Your task to perform on an android device: When is my next meeting? Image 0: 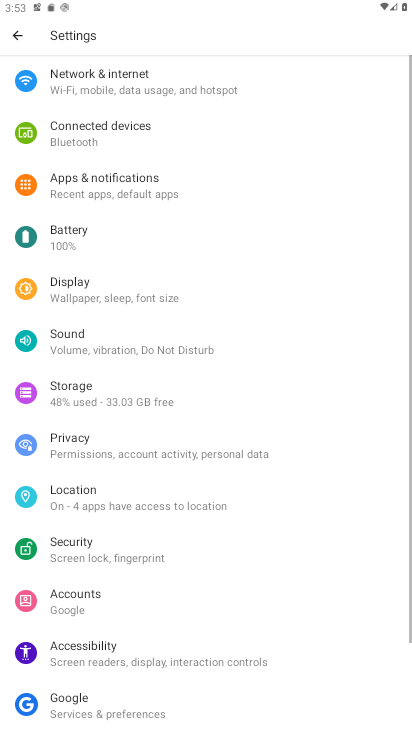
Step 0: press home button
Your task to perform on an android device: When is my next meeting? Image 1: 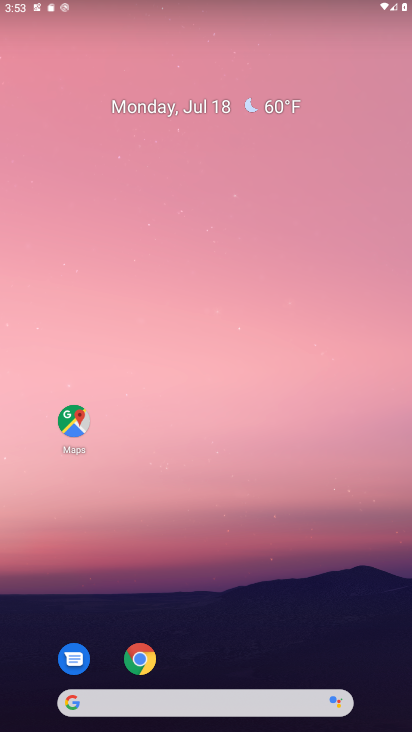
Step 1: drag from (264, 704) to (301, 56)
Your task to perform on an android device: When is my next meeting? Image 2: 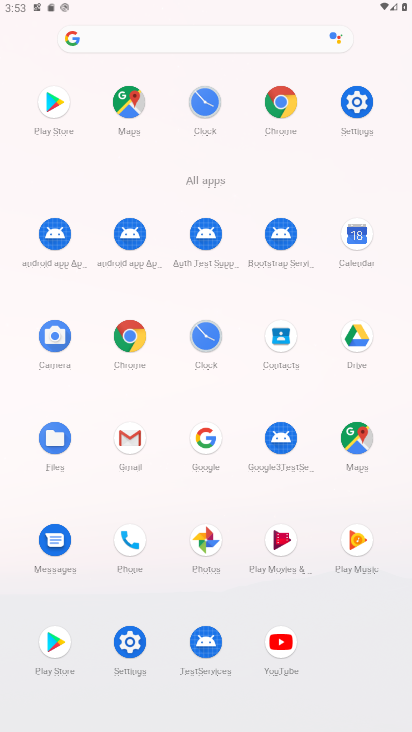
Step 2: click (359, 241)
Your task to perform on an android device: When is my next meeting? Image 3: 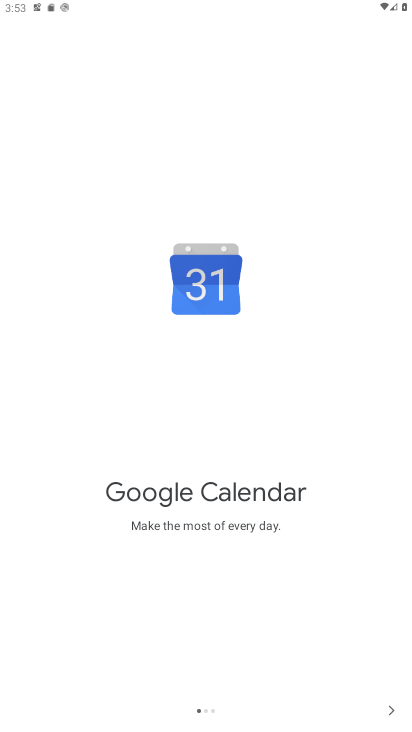
Step 3: click (387, 705)
Your task to perform on an android device: When is my next meeting? Image 4: 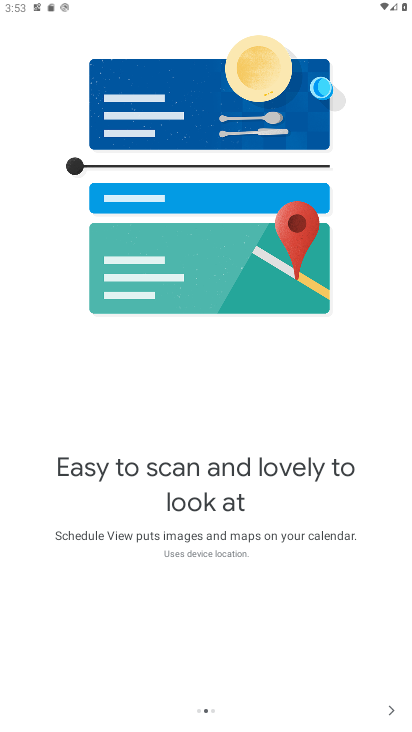
Step 4: click (387, 705)
Your task to perform on an android device: When is my next meeting? Image 5: 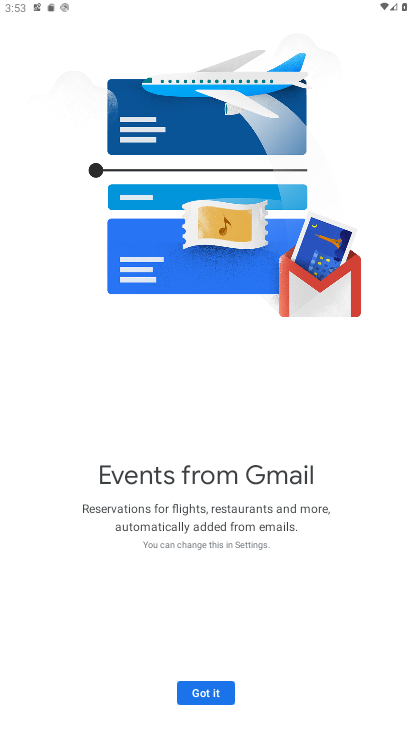
Step 5: click (214, 698)
Your task to perform on an android device: When is my next meeting? Image 6: 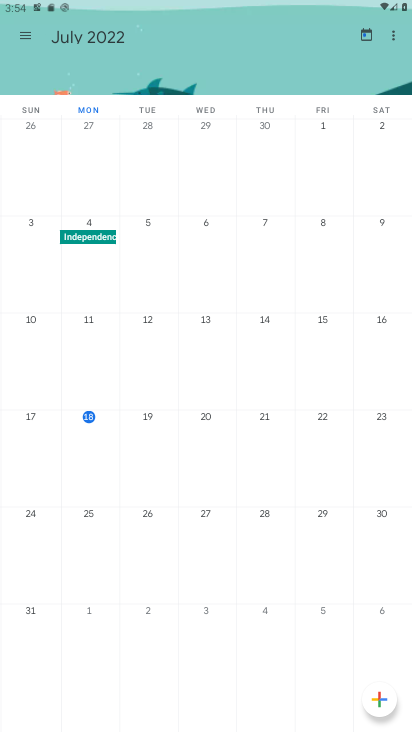
Step 6: click (150, 413)
Your task to perform on an android device: When is my next meeting? Image 7: 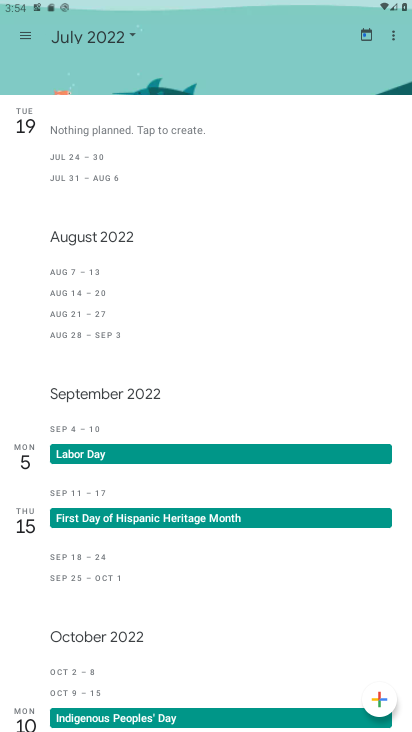
Step 7: task complete